Your task to perform on an android device: Toggle the flashlight Image 0: 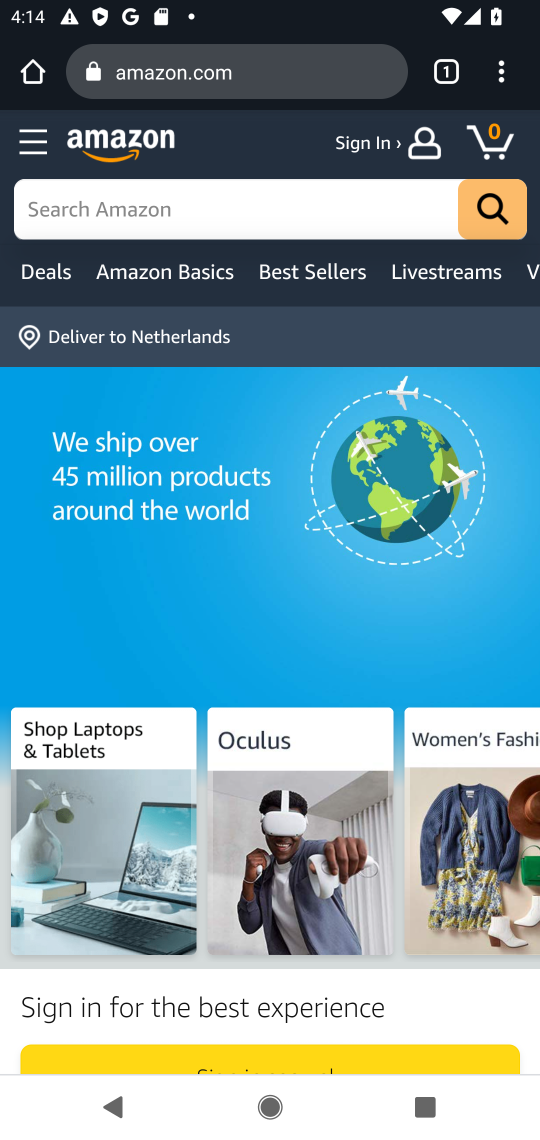
Step 0: press home button
Your task to perform on an android device: Toggle the flashlight Image 1: 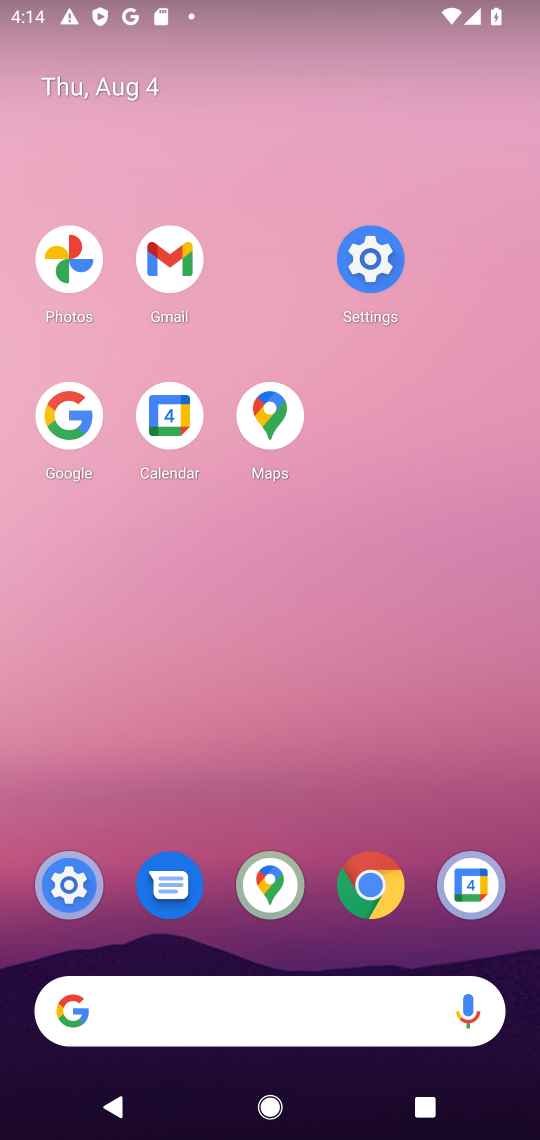
Step 1: task complete